Your task to perform on an android device: Search for "razer blackwidow" on amazon.com, select the first entry, add it to the cart, then select checkout. Image 0: 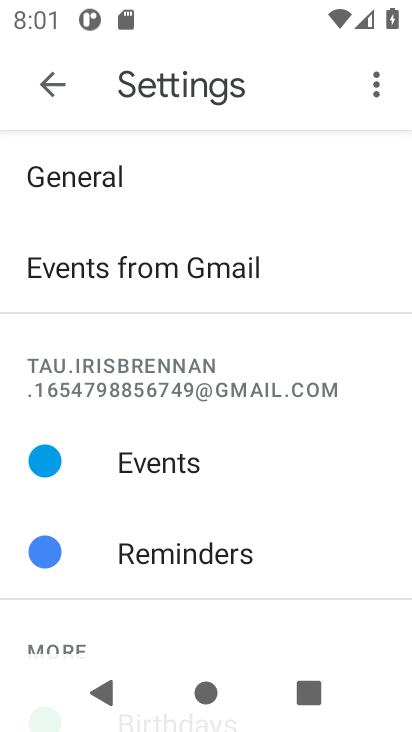
Step 0: press home button
Your task to perform on an android device: Search for "razer blackwidow" on amazon.com, select the first entry, add it to the cart, then select checkout. Image 1: 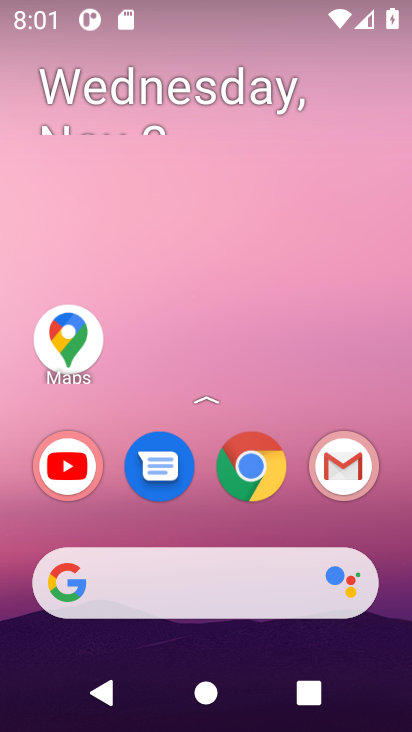
Step 1: click (272, 577)
Your task to perform on an android device: Search for "razer blackwidow" on amazon.com, select the first entry, add it to the cart, then select checkout. Image 2: 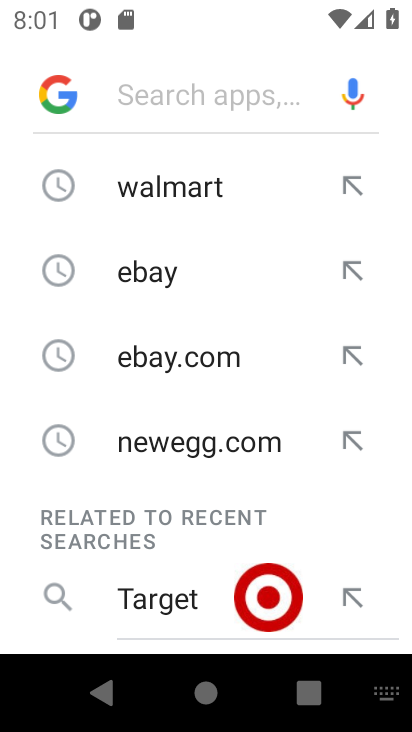
Step 2: type "amazon.com"
Your task to perform on an android device: Search for "razer blackwidow" on amazon.com, select the first entry, add it to the cart, then select checkout. Image 3: 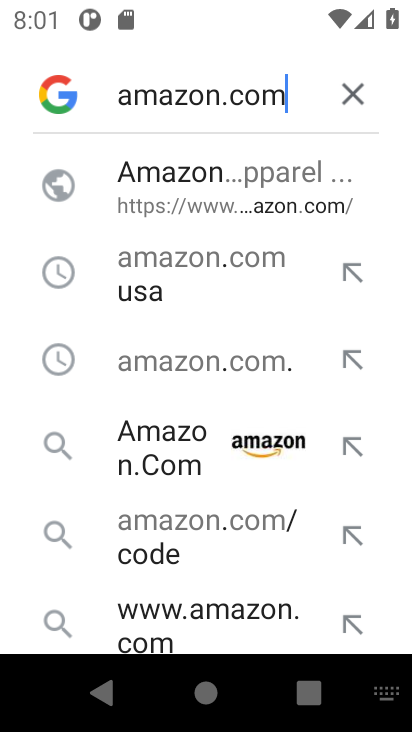
Step 3: type ""
Your task to perform on an android device: Search for "razer blackwidow" on amazon.com, select the first entry, add it to the cart, then select checkout. Image 4: 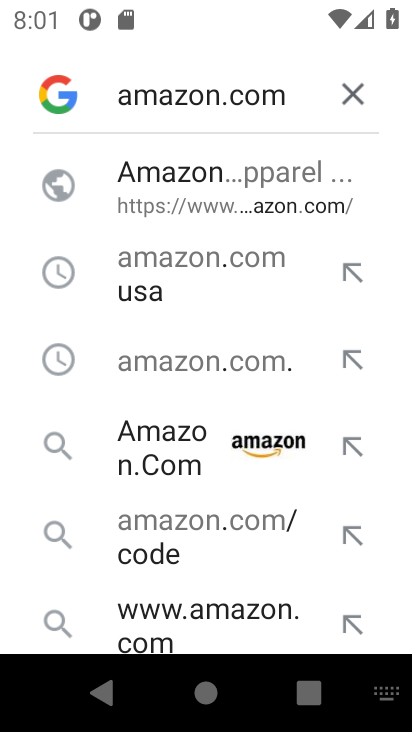
Step 4: click (198, 177)
Your task to perform on an android device: Search for "razer blackwidow" on amazon.com, select the first entry, add it to the cart, then select checkout. Image 5: 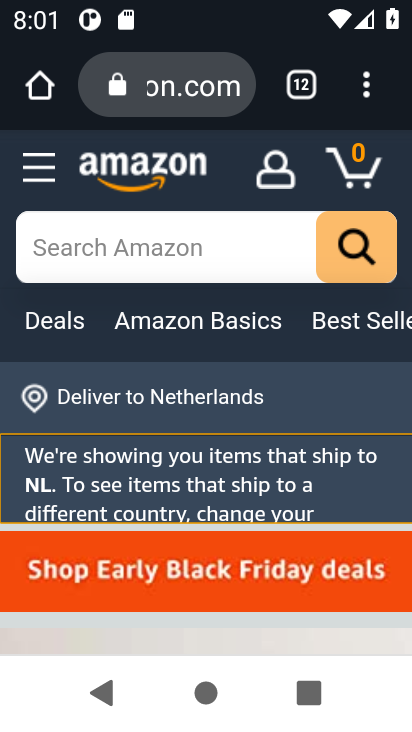
Step 5: click (193, 254)
Your task to perform on an android device: Search for "razer blackwidow" on amazon.com, select the first entry, add it to the cart, then select checkout. Image 6: 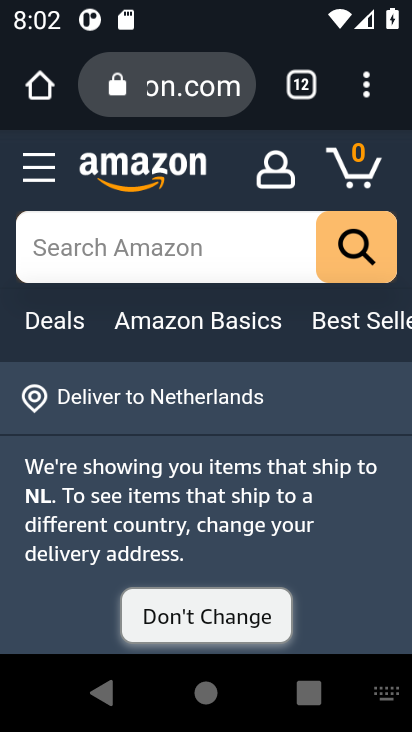
Step 6: type "razer blackwidow"
Your task to perform on an android device: Search for "razer blackwidow" on amazon.com, select the first entry, add it to the cart, then select checkout. Image 7: 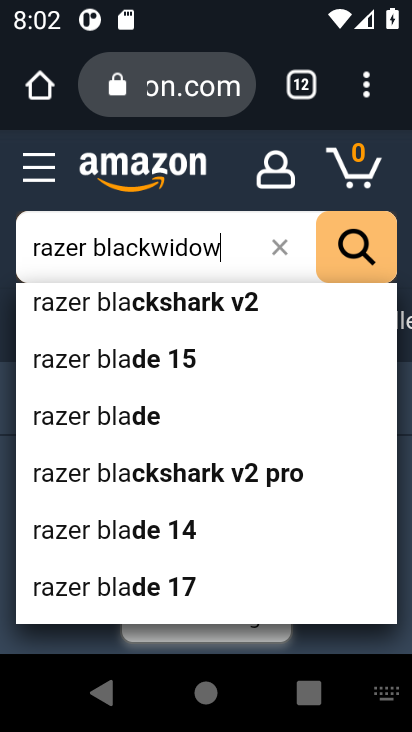
Step 7: type ""
Your task to perform on an android device: Search for "razer blackwidow" on amazon.com, select the first entry, add it to the cart, then select checkout. Image 8: 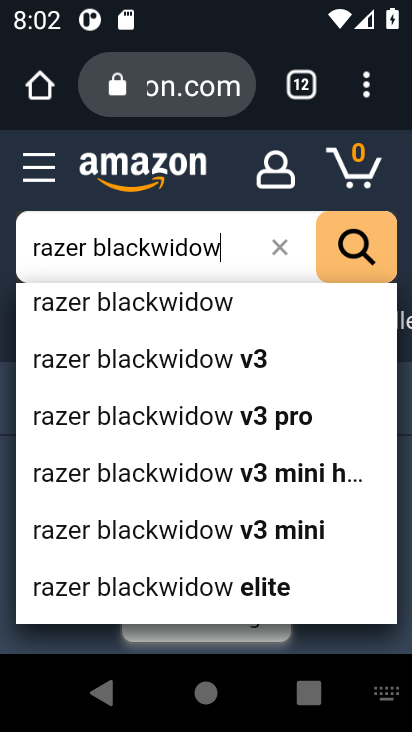
Step 8: click (254, 298)
Your task to perform on an android device: Search for "razer blackwidow" on amazon.com, select the first entry, add it to the cart, then select checkout. Image 9: 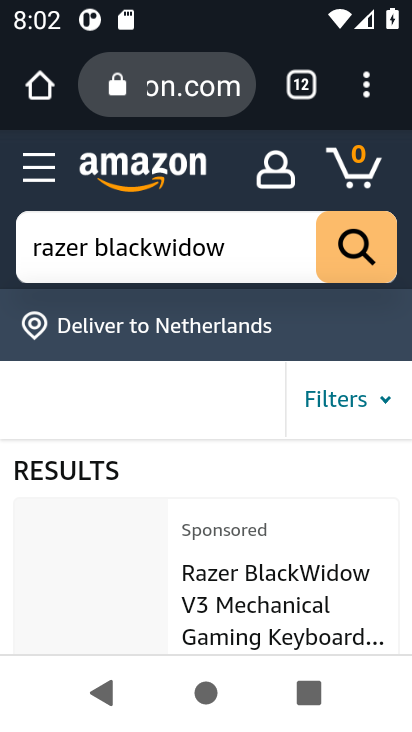
Step 9: drag from (290, 524) to (279, 427)
Your task to perform on an android device: Search for "razer blackwidow" on amazon.com, select the first entry, add it to the cart, then select checkout. Image 10: 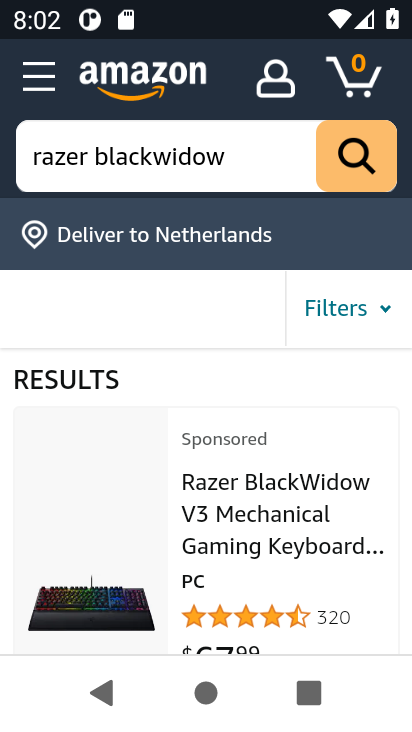
Step 10: drag from (273, 545) to (279, 422)
Your task to perform on an android device: Search for "razer blackwidow" on amazon.com, select the first entry, add it to the cart, then select checkout. Image 11: 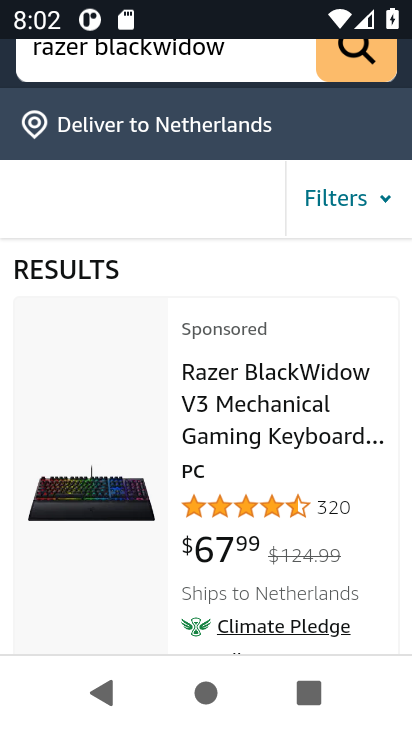
Step 11: click (278, 418)
Your task to perform on an android device: Search for "razer blackwidow" on amazon.com, select the first entry, add it to the cart, then select checkout. Image 12: 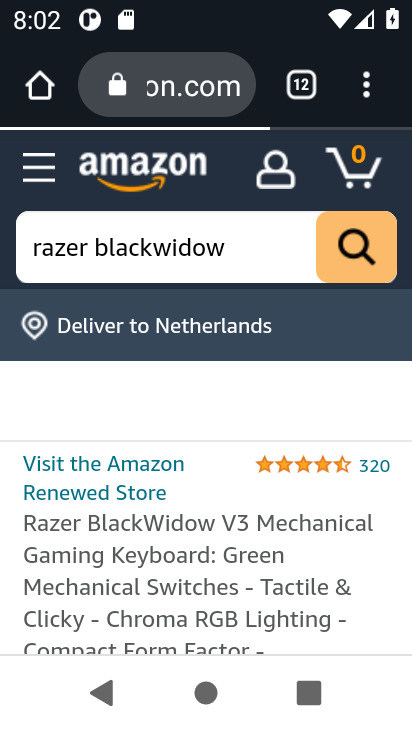
Step 12: drag from (233, 537) to (251, 370)
Your task to perform on an android device: Search for "razer blackwidow" on amazon.com, select the first entry, add it to the cart, then select checkout. Image 13: 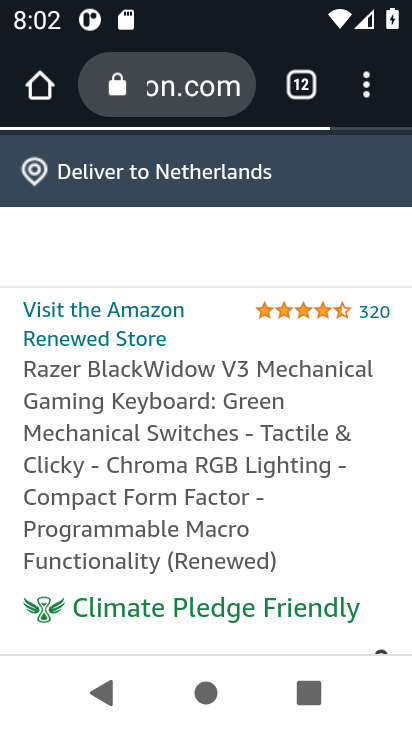
Step 13: drag from (270, 508) to (276, 339)
Your task to perform on an android device: Search for "razer blackwidow" on amazon.com, select the first entry, add it to the cart, then select checkout. Image 14: 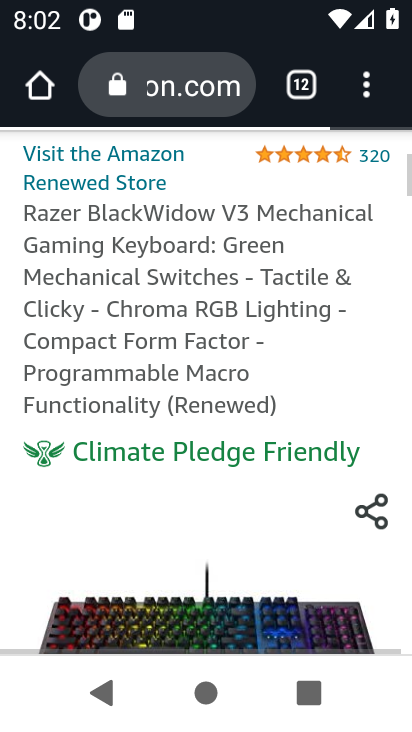
Step 14: drag from (247, 508) to (244, 328)
Your task to perform on an android device: Search for "razer blackwidow" on amazon.com, select the first entry, add it to the cart, then select checkout. Image 15: 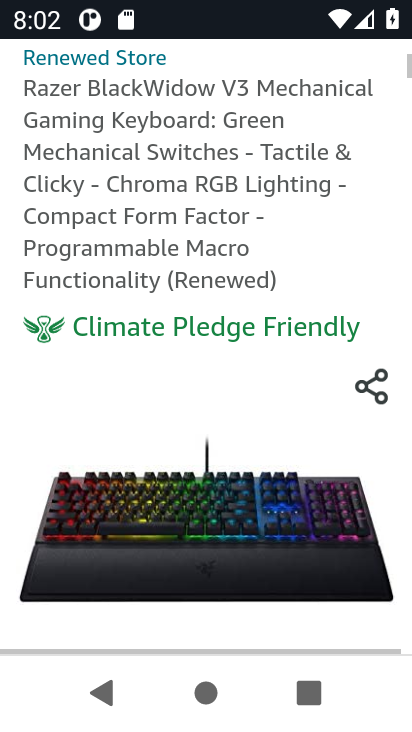
Step 15: drag from (240, 519) to (257, 303)
Your task to perform on an android device: Search for "razer blackwidow" on amazon.com, select the first entry, add it to the cart, then select checkout. Image 16: 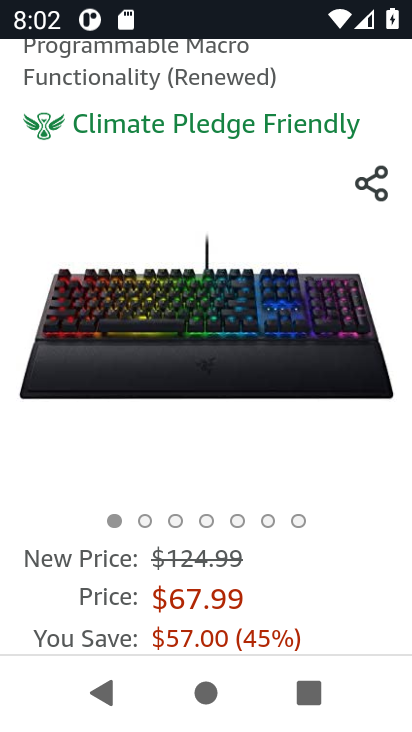
Step 16: click (291, 327)
Your task to perform on an android device: Search for "razer blackwidow" on amazon.com, select the first entry, add it to the cart, then select checkout. Image 17: 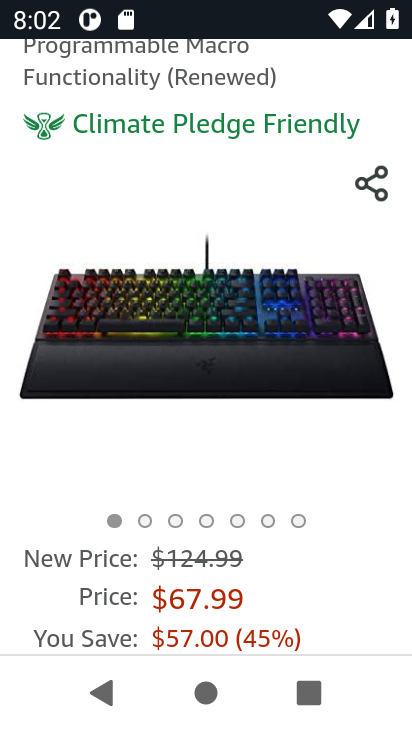
Step 17: drag from (252, 486) to (299, 356)
Your task to perform on an android device: Search for "razer blackwidow" on amazon.com, select the first entry, add it to the cart, then select checkout. Image 18: 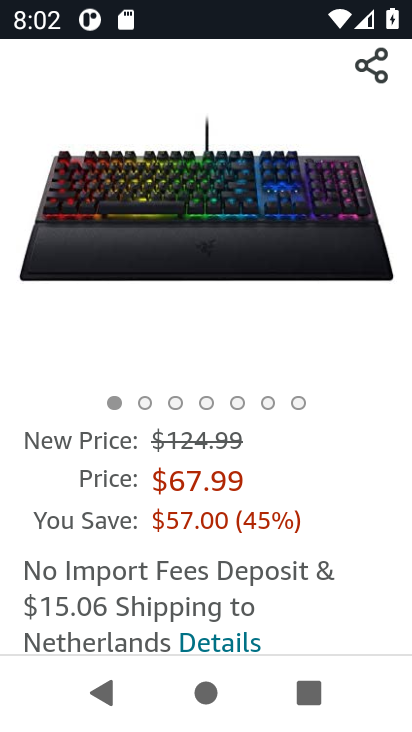
Step 18: drag from (292, 527) to (329, 250)
Your task to perform on an android device: Search for "razer blackwidow" on amazon.com, select the first entry, add it to the cart, then select checkout. Image 19: 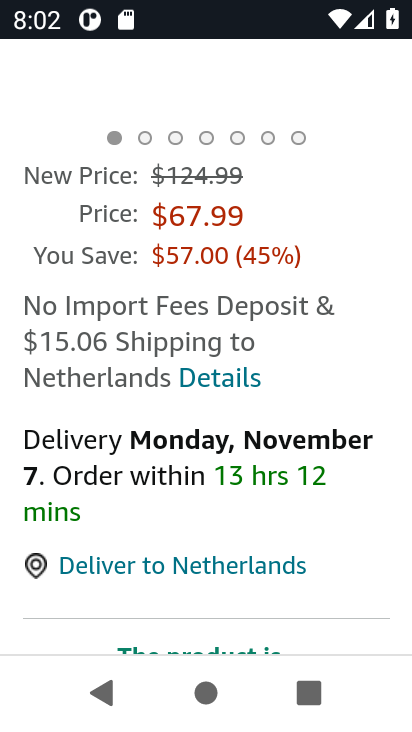
Step 19: drag from (291, 480) to (326, 245)
Your task to perform on an android device: Search for "razer blackwidow" on amazon.com, select the first entry, add it to the cart, then select checkout. Image 20: 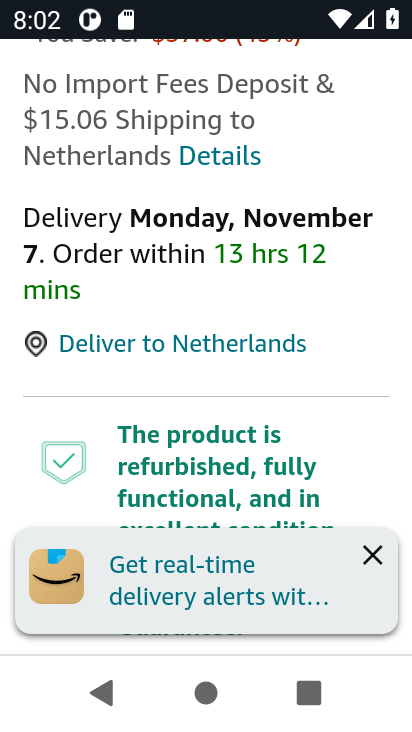
Step 20: drag from (299, 458) to (308, 237)
Your task to perform on an android device: Search for "razer blackwidow" on amazon.com, select the first entry, add it to the cart, then select checkout. Image 21: 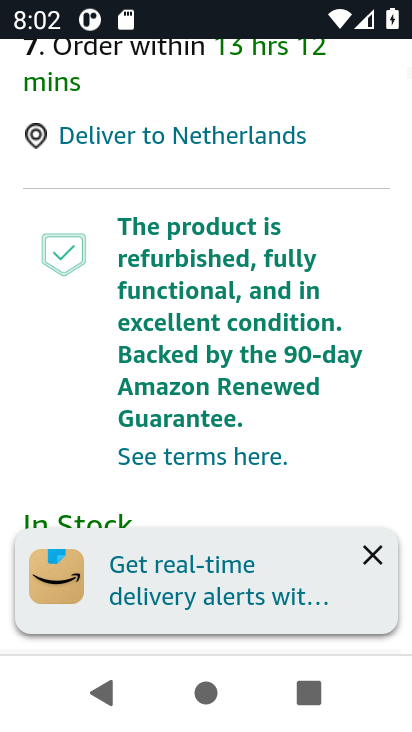
Step 21: drag from (320, 416) to (352, 183)
Your task to perform on an android device: Search for "razer blackwidow" on amazon.com, select the first entry, add it to the cart, then select checkout. Image 22: 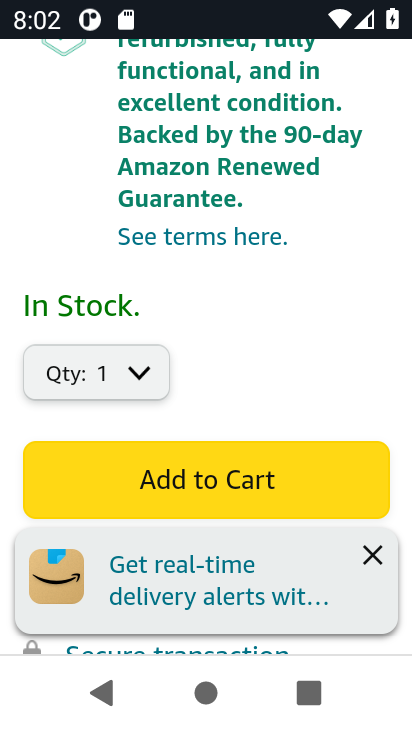
Step 22: click (291, 453)
Your task to perform on an android device: Search for "razer blackwidow" on amazon.com, select the first entry, add it to the cart, then select checkout. Image 23: 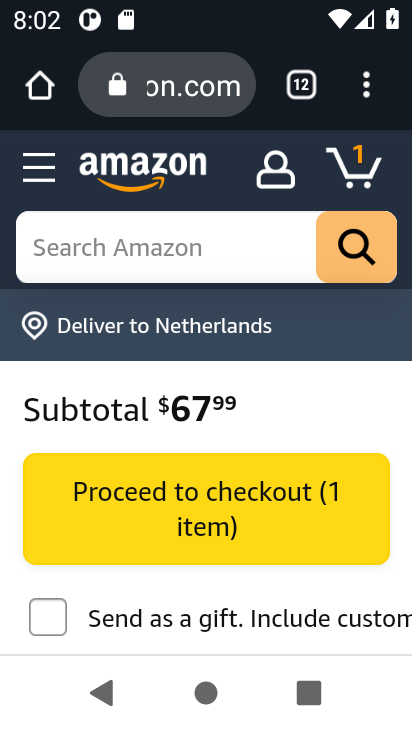
Step 23: click (333, 183)
Your task to perform on an android device: Search for "razer blackwidow" on amazon.com, select the first entry, add it to the cart, then select checkout. Image 24: 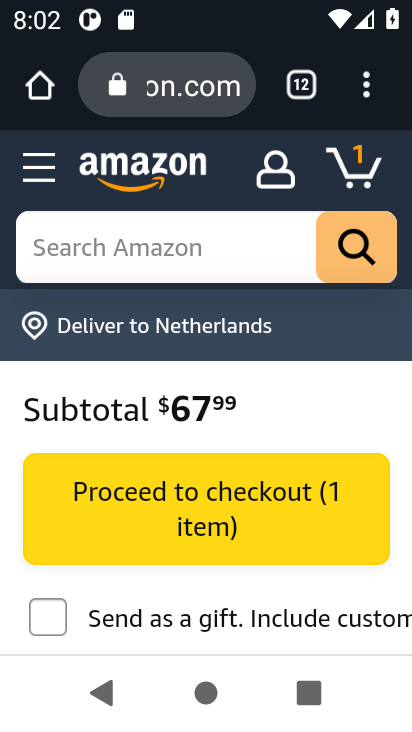
Step 24: click (350, 165)
Your task to perform on an android device: Search for "razer blackwidow" on amazon.com, select the first entry, add it to the cart, then select checkout. Image 25: 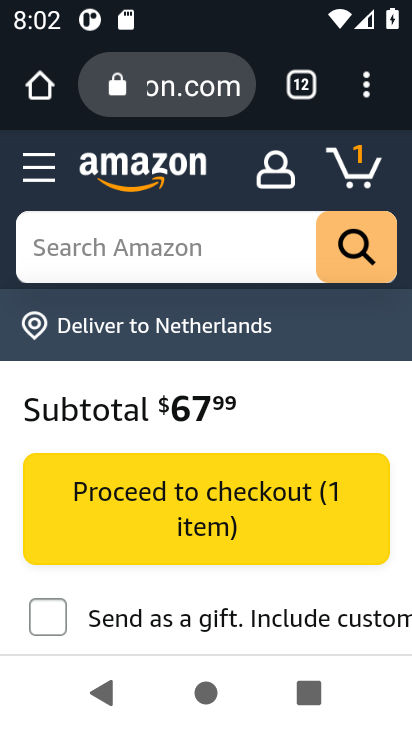
Step 25: drag from (209, 608) to (204, 414)
Your task to perform on an android device: Search for "razer blackwidow" on amazon.com, select the first entry, add it to the cart, then select checkout. Image 26: 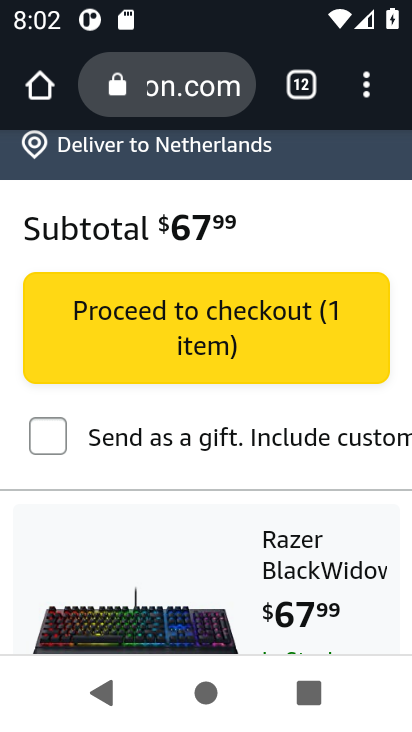
Step 26: click (197, 348)
Your task to perform on an android device: Search for "razer blackwidow" on amazon.com, select the first entry, add it to the cart, then select checkout. Image 27: 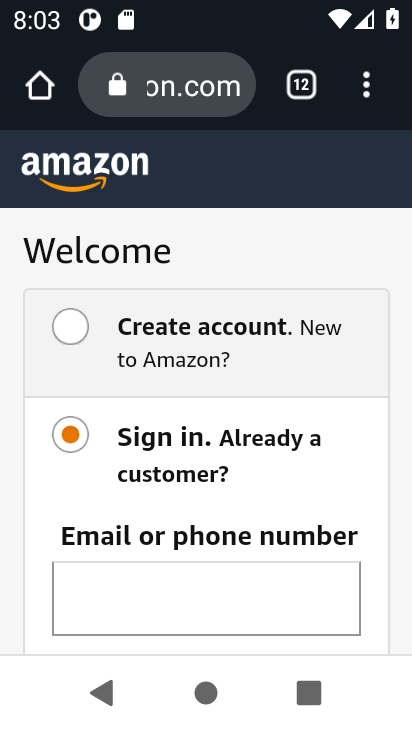
Step 27: task complete